Your task to perform on an android device: choose inbox layout in the gmail app Image 0: 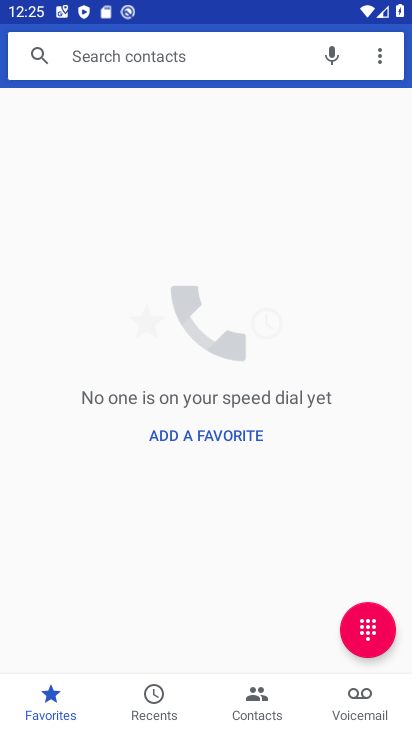
Step 0: press home button
Your task to perform on an android device: choose inbox layout in the gmail app Image 1: 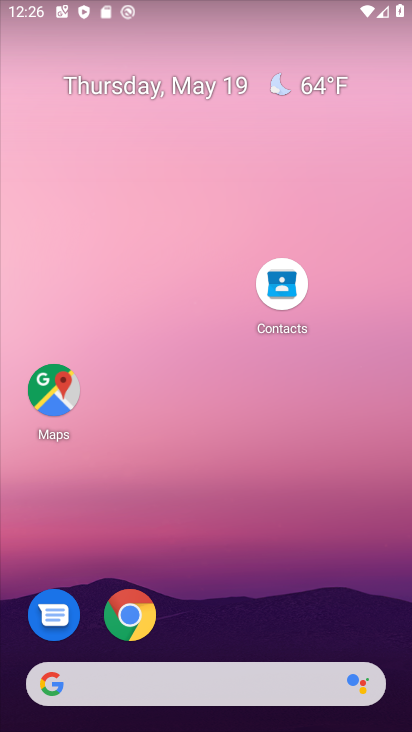
Step 1: drag from (252, 626) to (336, 125)
Your task to perform on an android device: choose inbox layout in the gmail app Image 2: 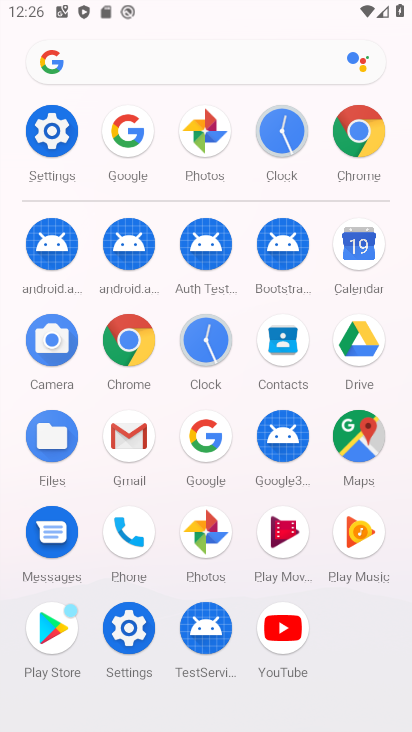
Step 2: click (137, 439)
Your task to perform on an android device: choose inbox layout in the gmail app Image 3: 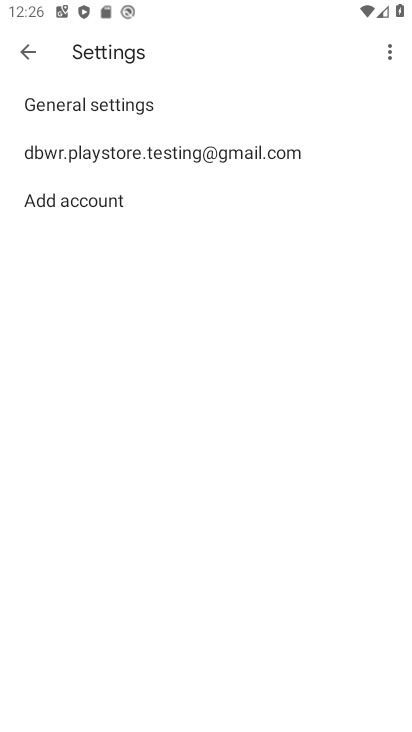
Step 3: click (128, 158)
Your task to perform on an android device: choose inbox layout in the gmail app Image 4: 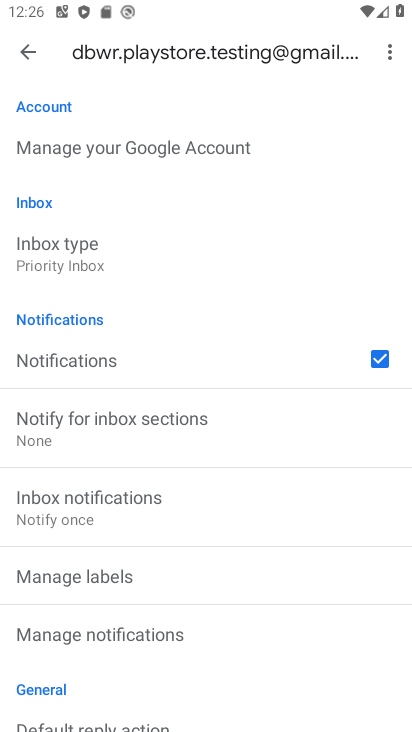
Step 4: task complete